Your task to perform on an android device: Search for Mexican restaurants on Maps Image 0: 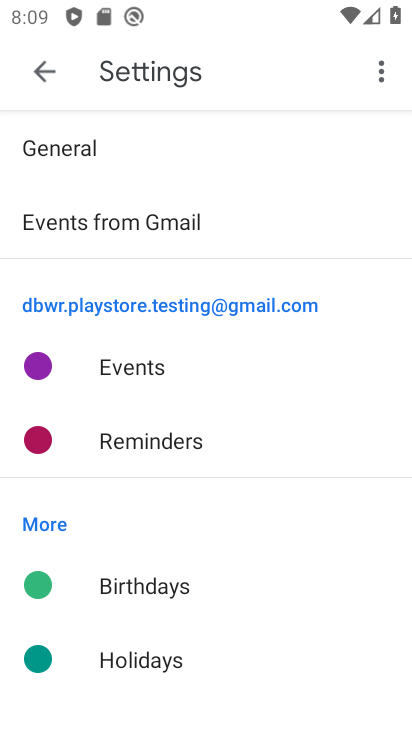
Step 0: press home button
Your task to perform on an android device: Search for Mexican restaurants on Maps Image 1: 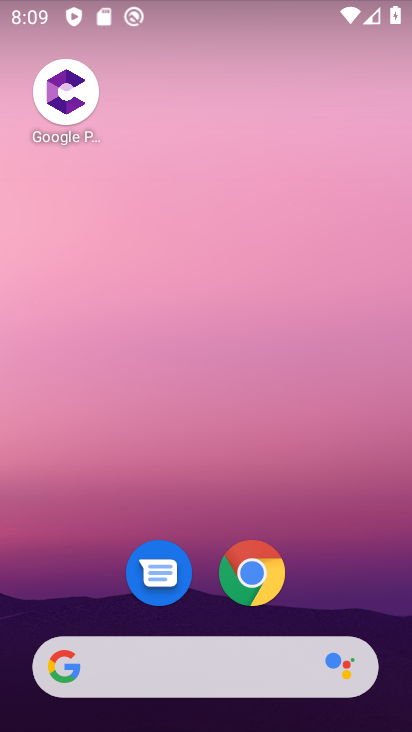
Step 1: drag from (321, 586) to (290, 45)
Your task to perform on an android device: Search for Mexican restaurants on Maps Image 2: 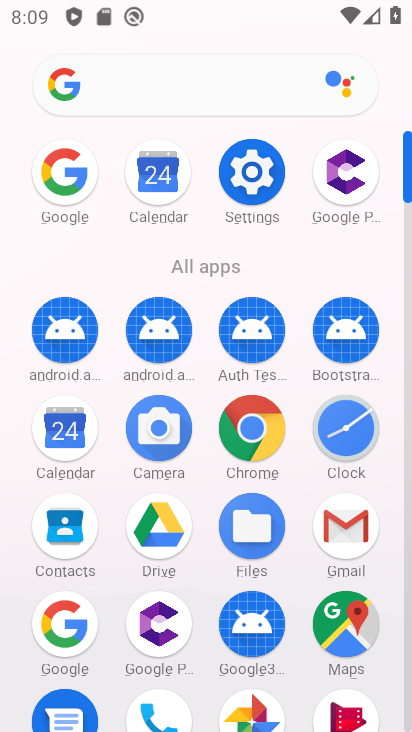
Step 2: click (341, 630)
Your task to perform on an android device: Search for Mexican restaurants on Maps Image 3: 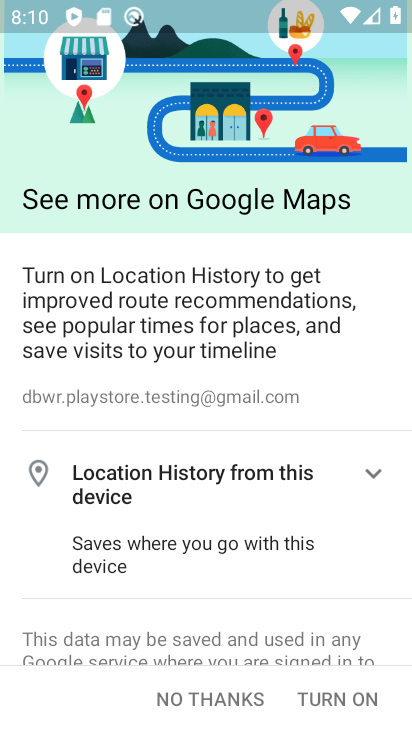
Step 3: click (204, 704)
Your task to perform on an android device: Search for Mexican restaurants on Maps Image 4: 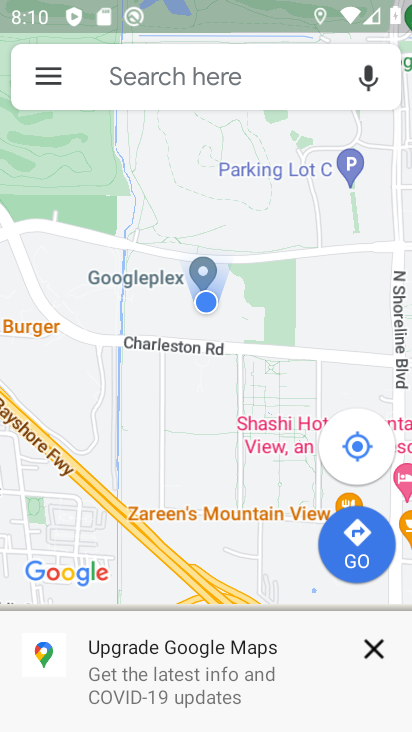
Step 4: click (202, 89)
Your task to perform on an android device: Search for Mexican restaurants on Maps Image 5: 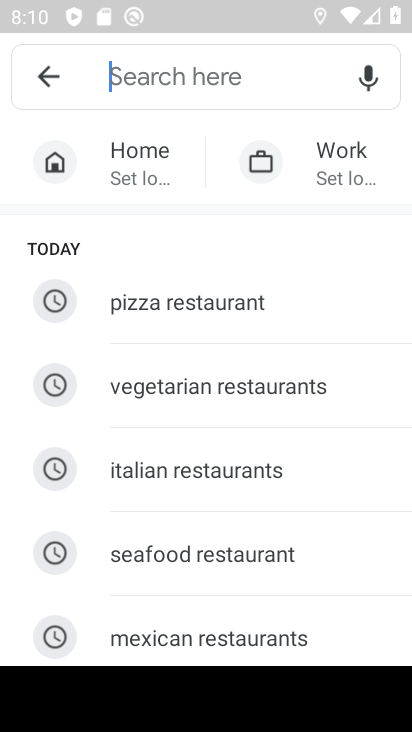
Step 5: type "mexican restaurants"
Your task to perform on an android device: Search for Mexican restaurants on Maps Image 6: 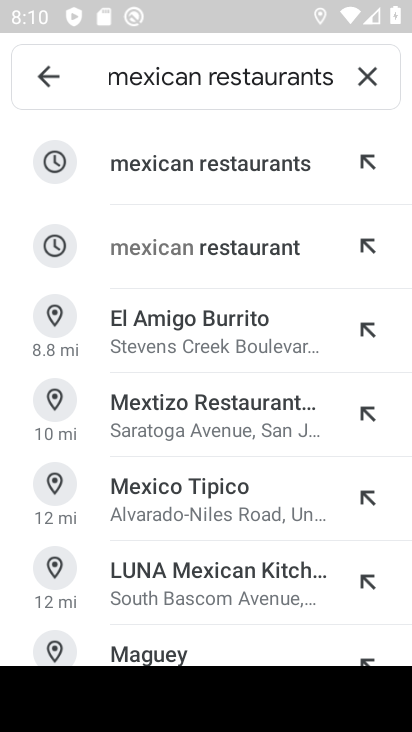
Step 6: click (195, 137)
Your task to perform on an android device: Search for Mexican restaurants on Maps Image 7: 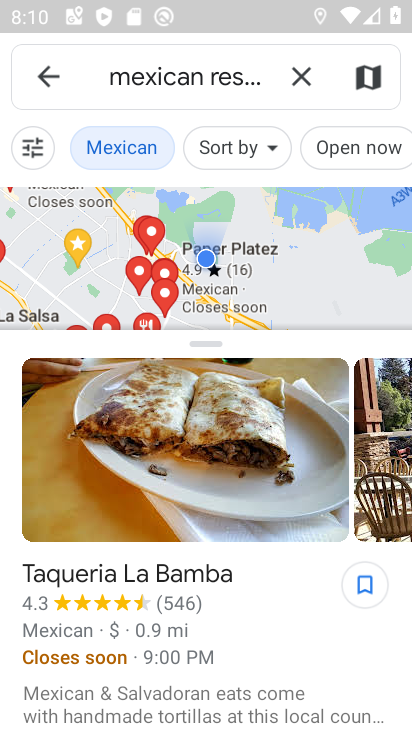
Step 7: task complete